Your task to perform on an android device: Open location settings Image 0: 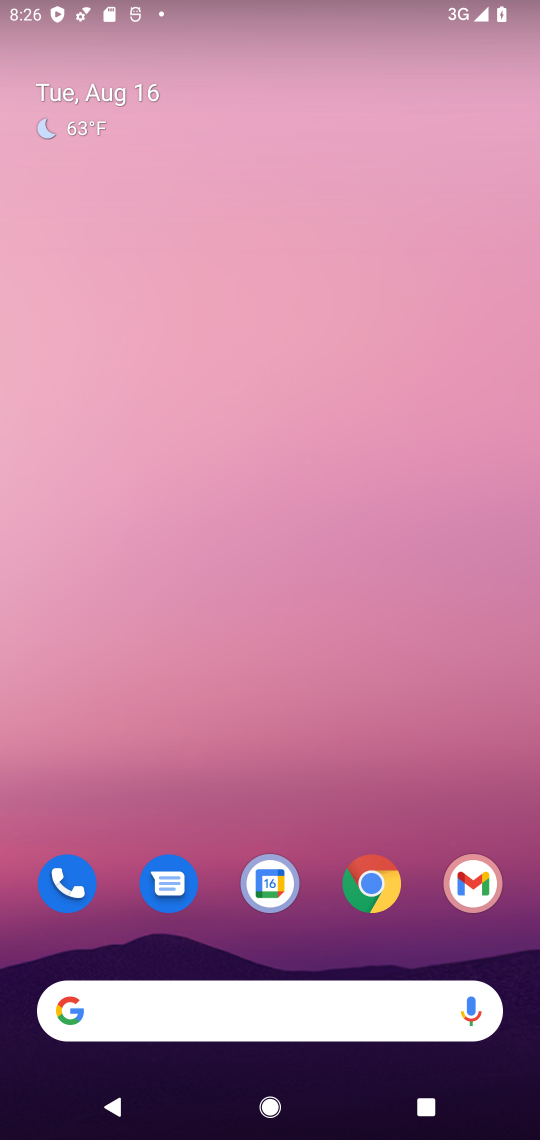
Step 0: drag from (358, 791) to (333, 282)
Your task to perform on an android device: Open location settings Image 1: 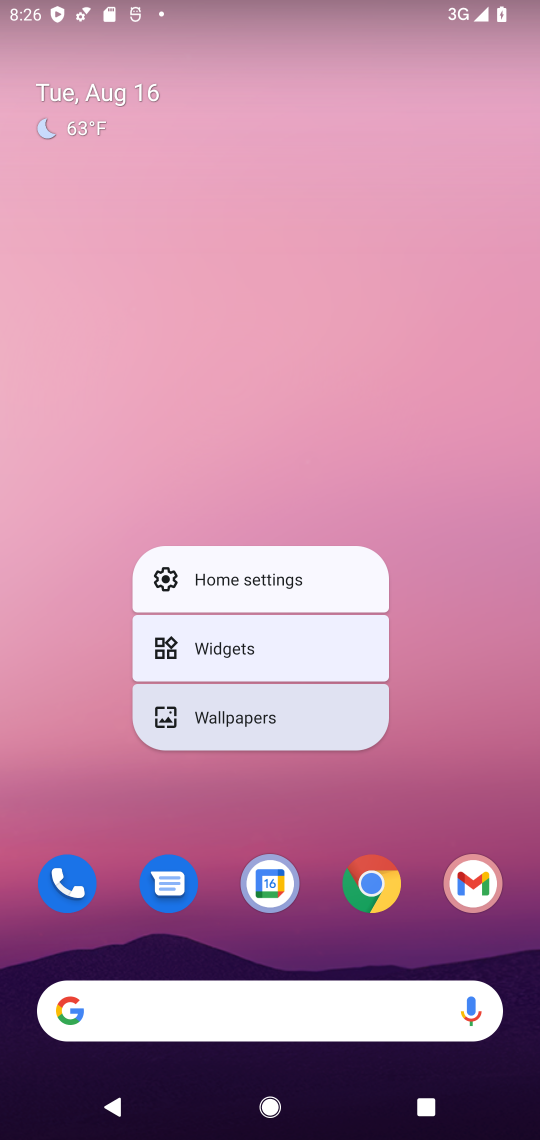
Step 1: click (447, 644)
Your task to perform on an android device: Open location settings Image 2: 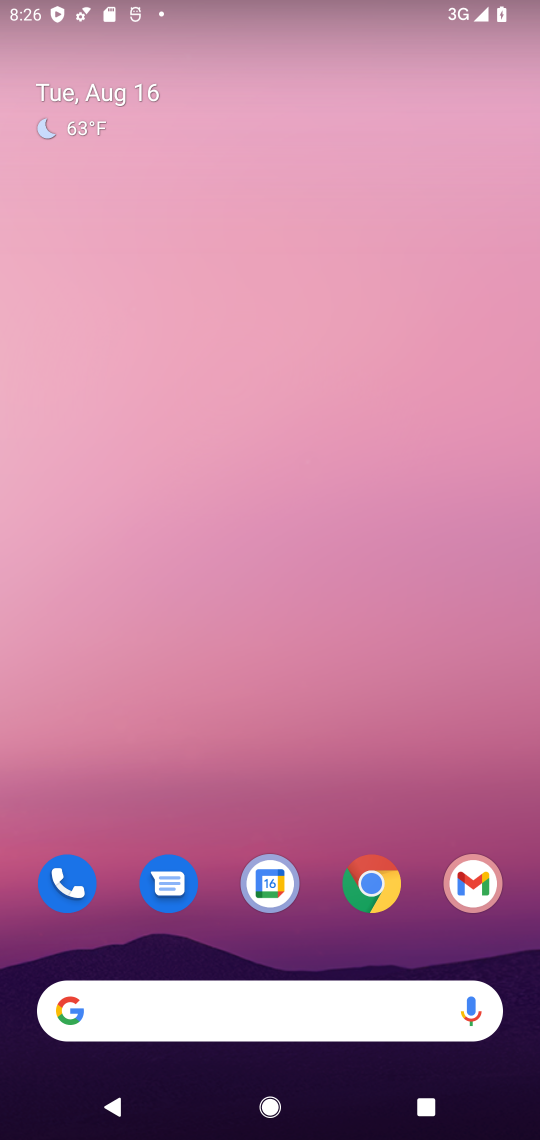
Step 2: drag from (458, 803) to (411, 247)
Your task to perform on an android device: Open location settings Image 3: 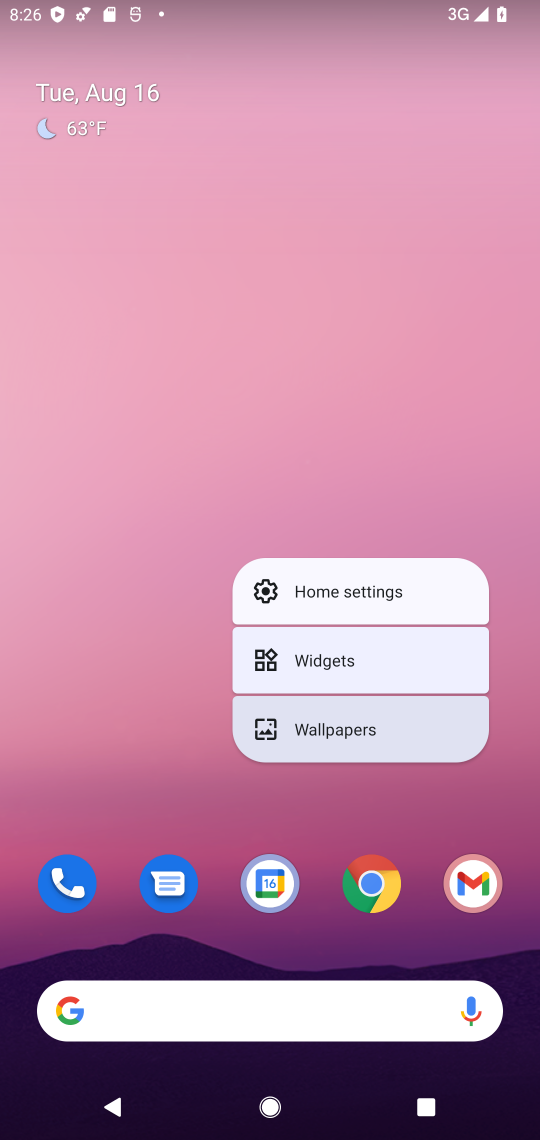
Step 3: click (408, 381)
Your task to perform on an android device: Open location settings Image 4: 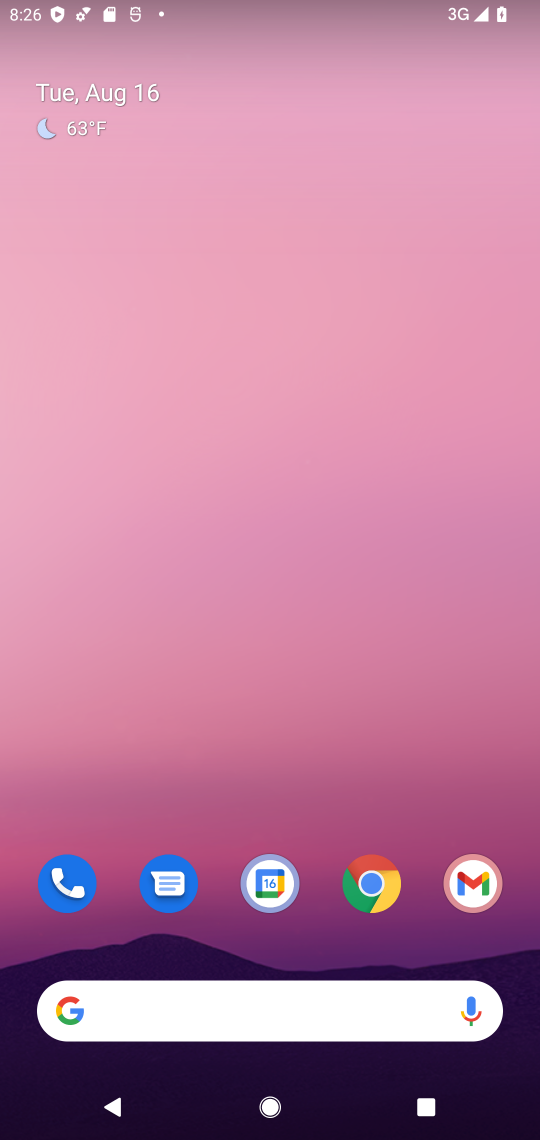
Step 4: drag from (380, 781) to (418, 163)
Your task to perform on an android device: Open location settings Image 5: 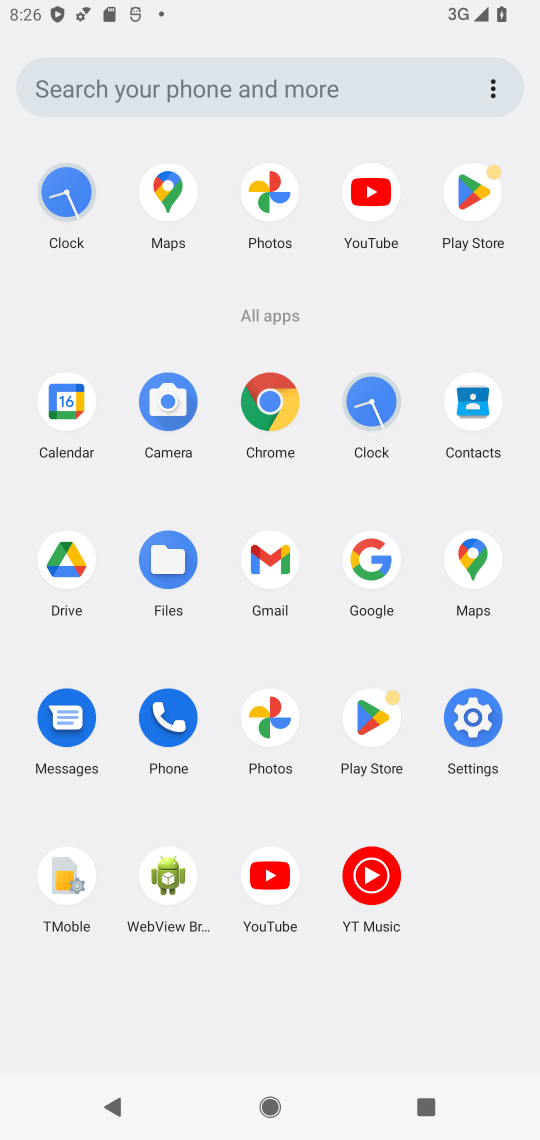
Step 5: click (487, 727)
Your task to perform on an android device: Open location settings Image 6: 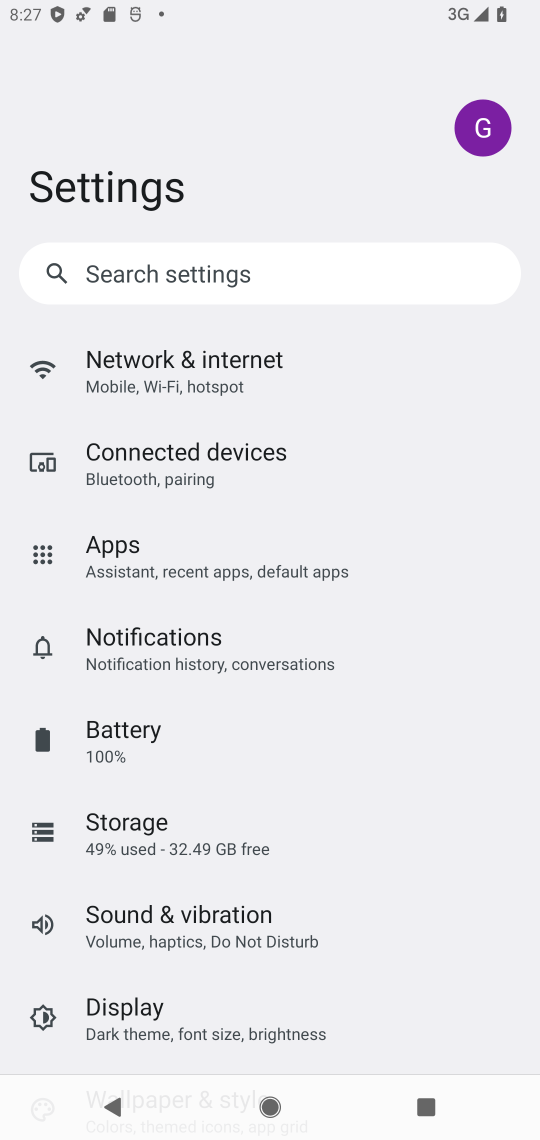
Step 6: drag from (301, 951) to (359, 491)
Your task to perform on an android device: Open location settings Image 7: 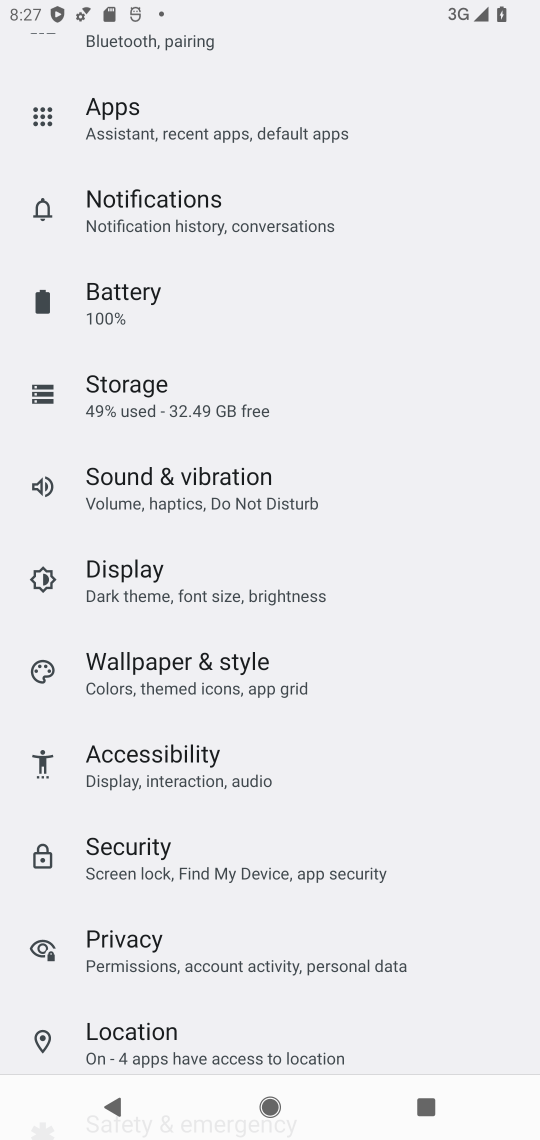
Step 7: click (135, 1047)
Your task to perform on an android device: Open location settings Image 8: 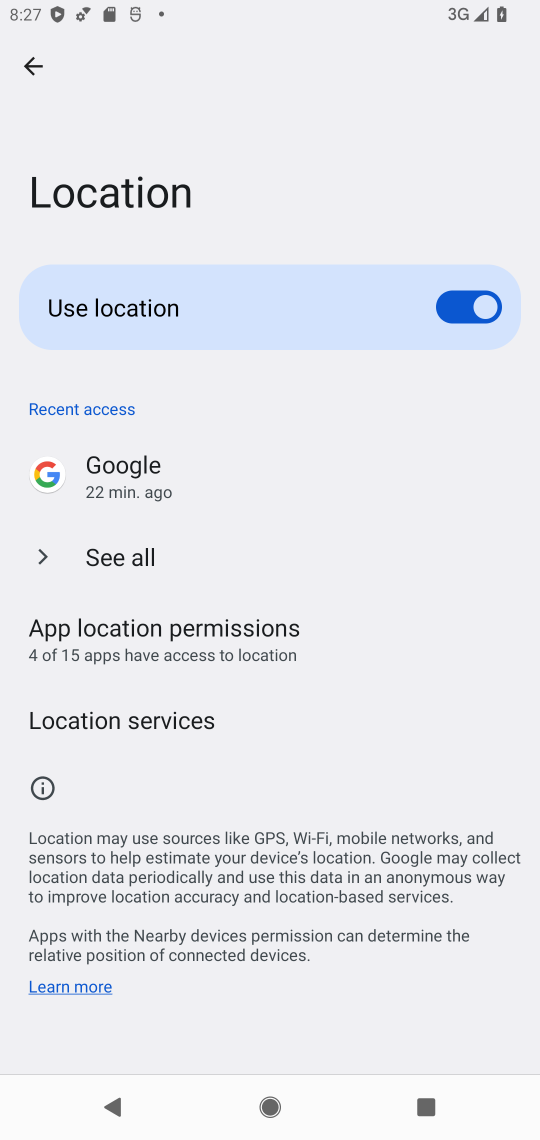
Step 8: task complete